Your task to perform on an android device: Go to Yahoo.com Image 0: 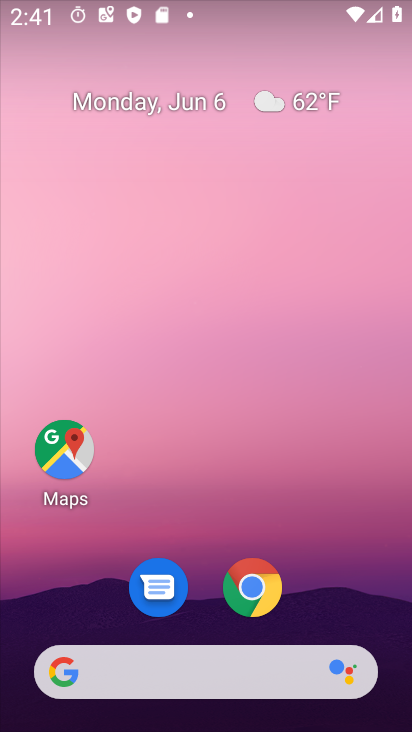
Step 0: drag from (327, 597) to (217, 0)
Your task to perform on an android device: Go to Yahoo.com Image 1: 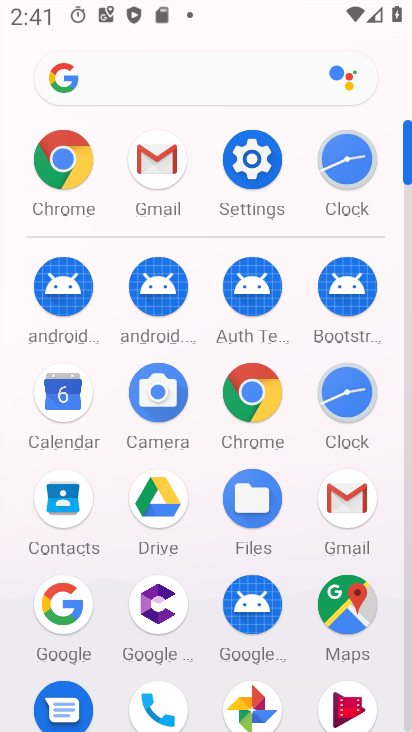
Step 1: drag from (1, 635) to (33, 293)
Your task to perform on an android device: Go to Yahoo.com Image 2: 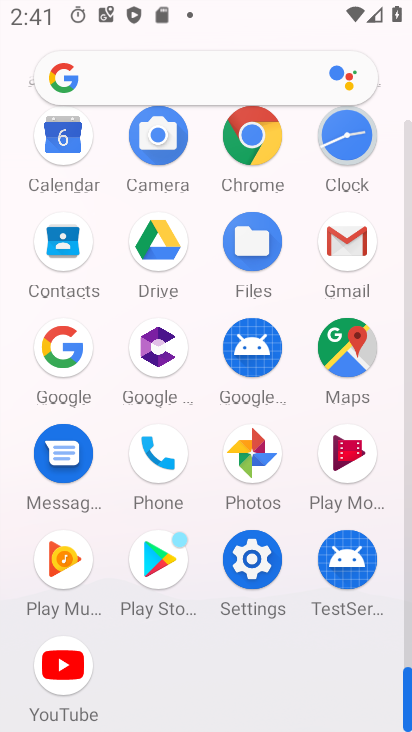
Step 2: click (249, 124)
Your task to perform on an android device: Go to Yahoo.com Image 3: 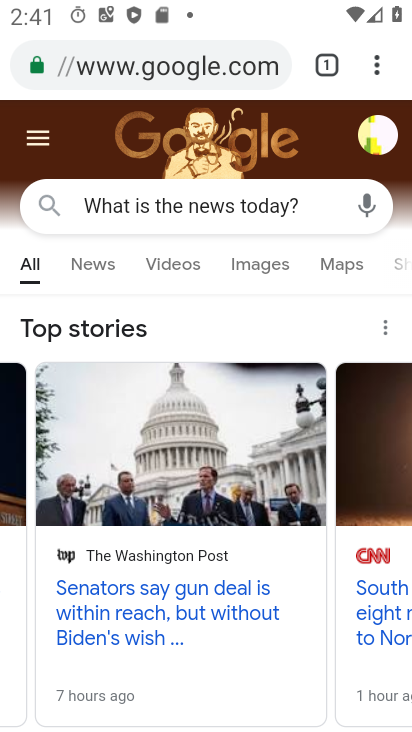
Step 3: click (197, 50)
Your task to perform on an android device: Go to Yahoo.com Image 4: 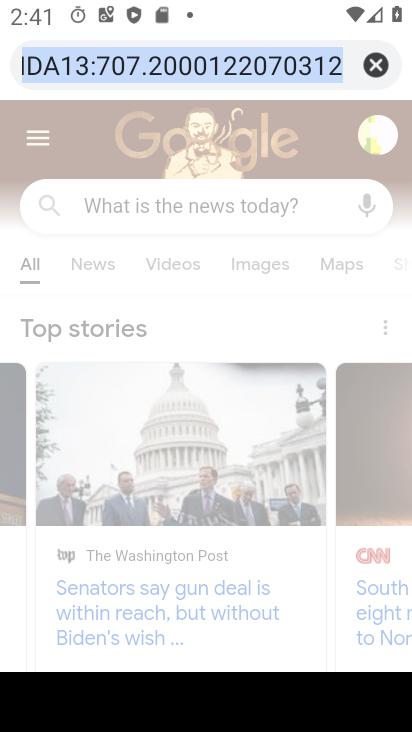
Step 4: click (386, 73)
Your task to perform on an android device: Go to Yahoo.com Image 5: 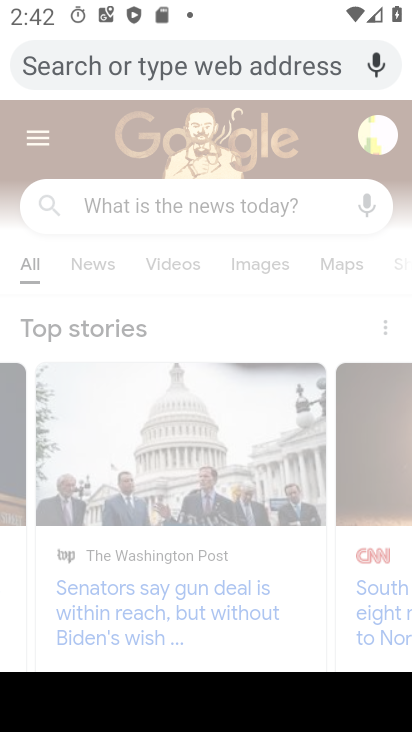
Step 5: type "Yahoo.com"
Your task to perform on an android device: Go to Yahoo.com Image 6: 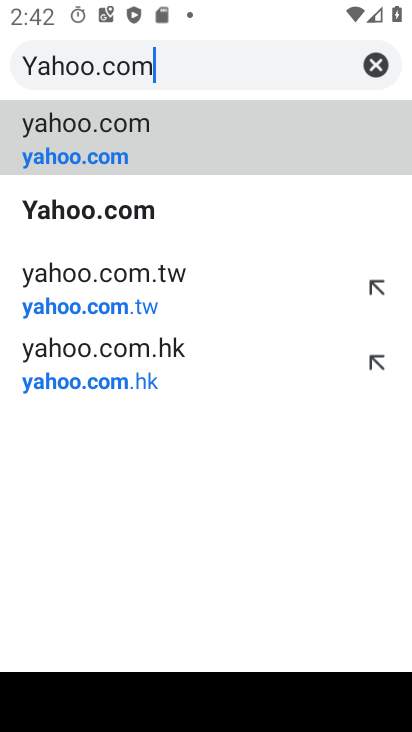
Step 6: type ""
Your task to perform on an android device: Go to Yahoo.com Image 7: 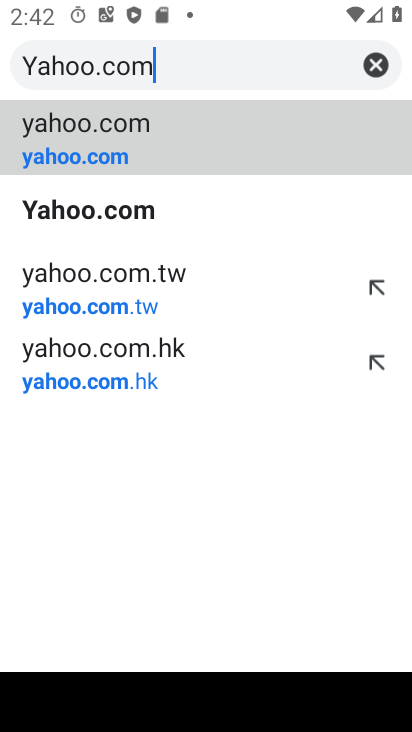
Step 7: click (170, 141)
Your task to perform on an android device: Go to Yahoo.com Image 8: 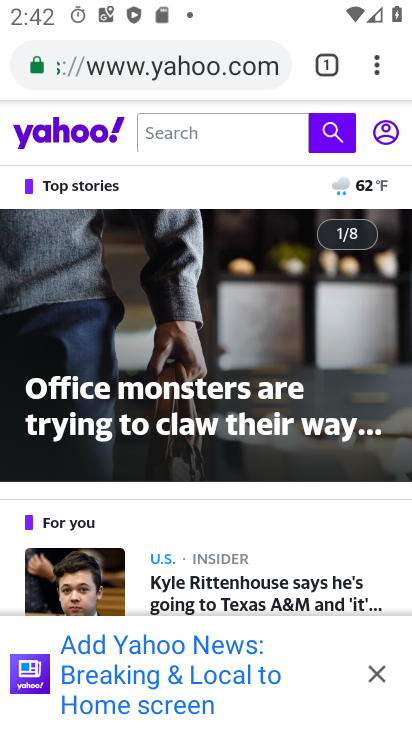
Step 8: task complete